Your task to perform on an android device: Open the phone app and click the voicemail tab. Image 0: 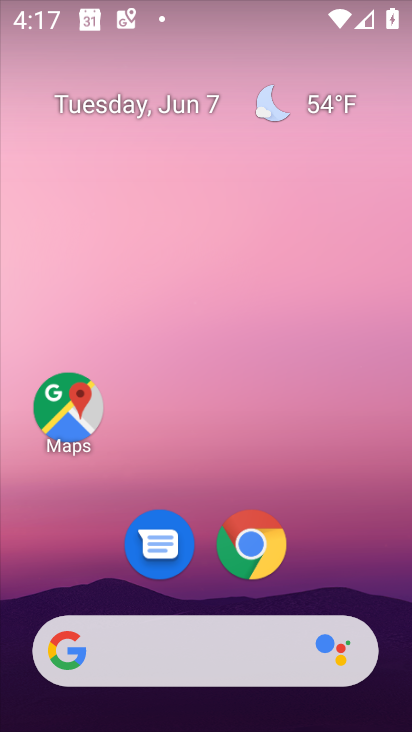
Step 0: task complete